Your task to perform on an android device: Do I have any events tomorrow? Image 0: 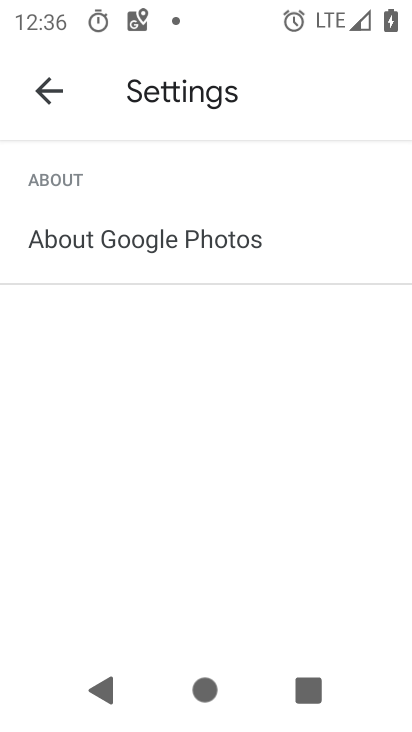
Step 0: press home button
Your task to perform on an android device: Do I have any events tomorrow? Image 1: 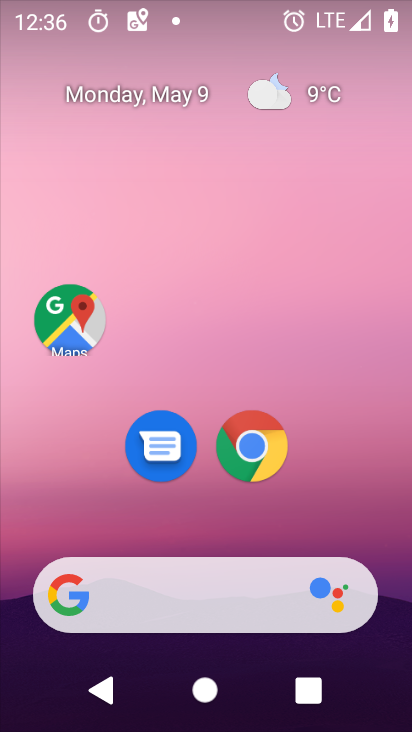
Step 1: drag from (370, 555) to (376, 4)
Your task to perform on an android device: Do I have any events tomorrow? Image 2: 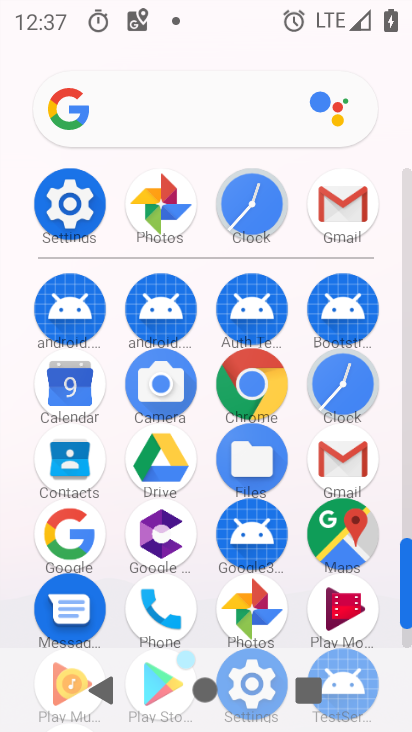
Step 2: click (67, 388)
Your task to perform on an android device: Do I have any events tomorrow? Image 3: 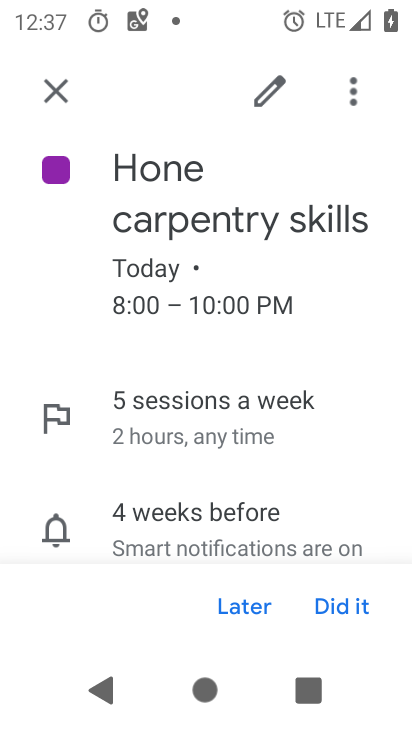
Step 3: click (61, 93)
Your task to perform on an android device: Do I have any events tomorrow? Image 4: 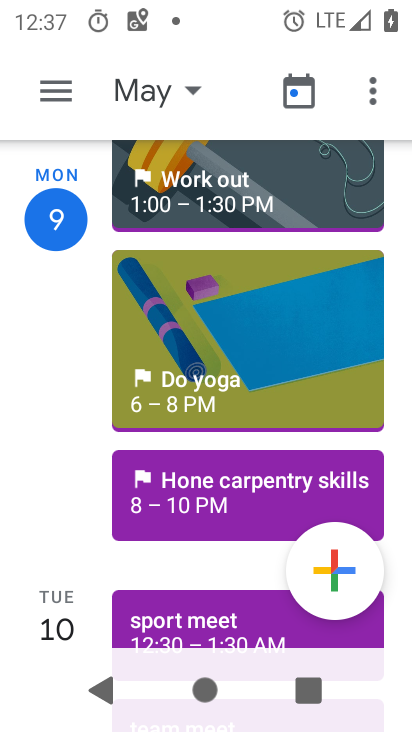
Step 4: drag from (181, 227) to (208, 504)
Your task to perform on an android device: Do I have any events tomorrow? Image 5: 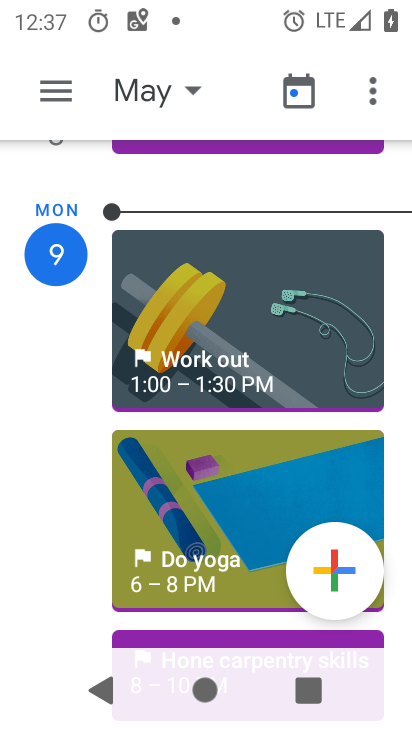
Step 5: click (192, 95)
Your task to perform on an android device: Do I have any events tomorrow? Image 6: 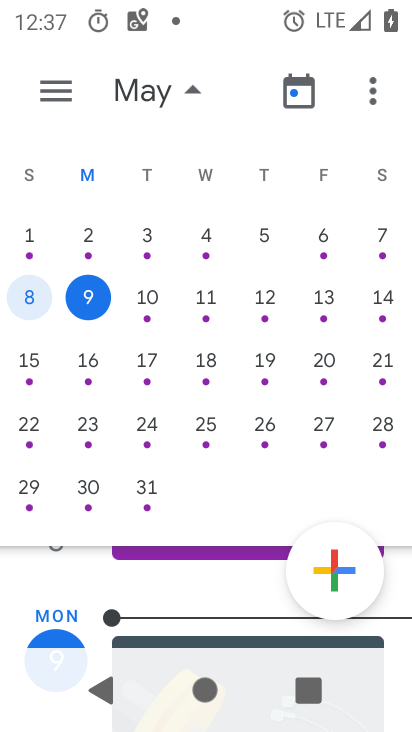
Step 6: drag from (189, 426) to (198, 130)
Your task to perform on an android device: Do I have any events tomorrow? Image 7: 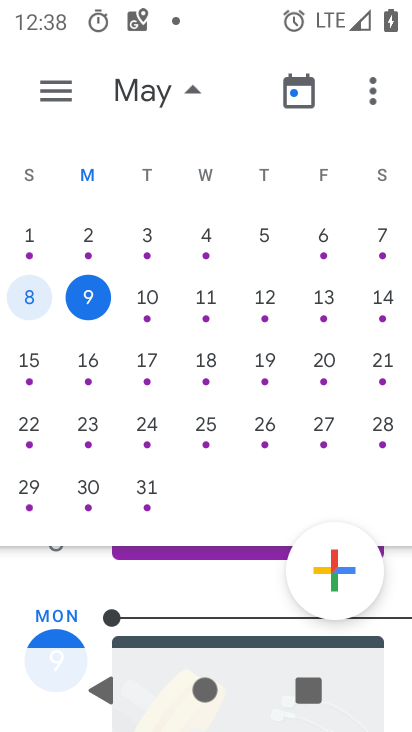
Step 7: drag from (213, 575) to (217, 154)
Your task to perform on an android device: Do I have any events tomorrow? Image 8: 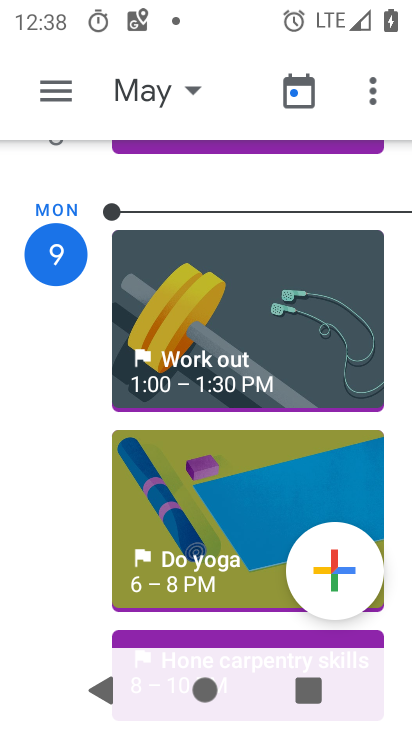
Step 8: drag from (170, 555) to (171, 289)
Your task to perform on an android device: Do I have any events tomorrow? Image 9: 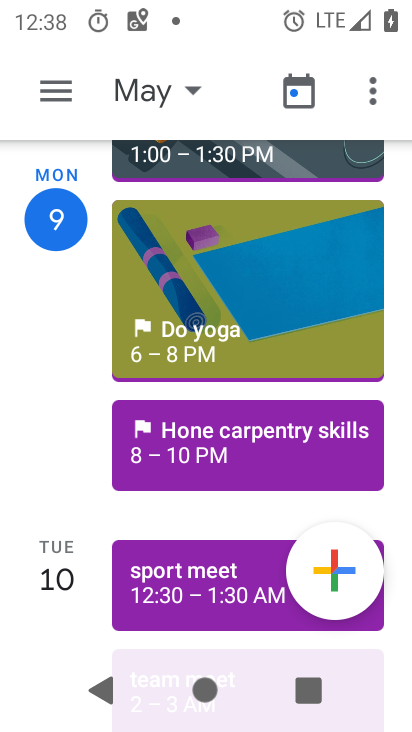
Step 9: click (186, 570)
Your task to perform on an android device: Do I have any events tomorrow? Image 10: 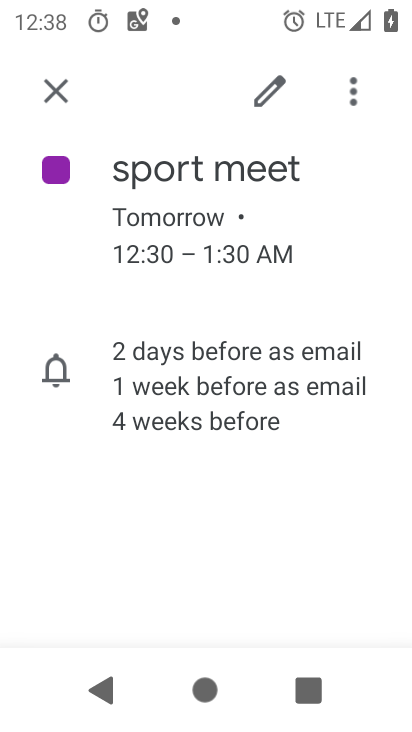
Step 10: task complete